Your task to perform on an android device: open app "Life360: Find Family & Friends" (install if not already installed) Image 0: 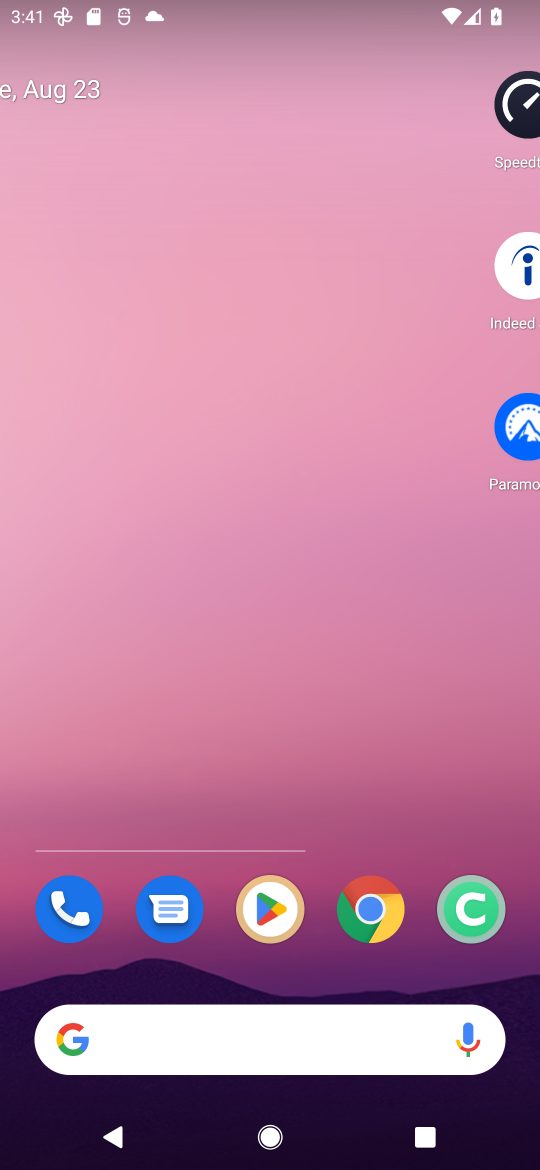
Step 0: press home button
Your task to perform on an android device: open app "Life360: Find Family & Friends" (install if not already installed) Image 1: 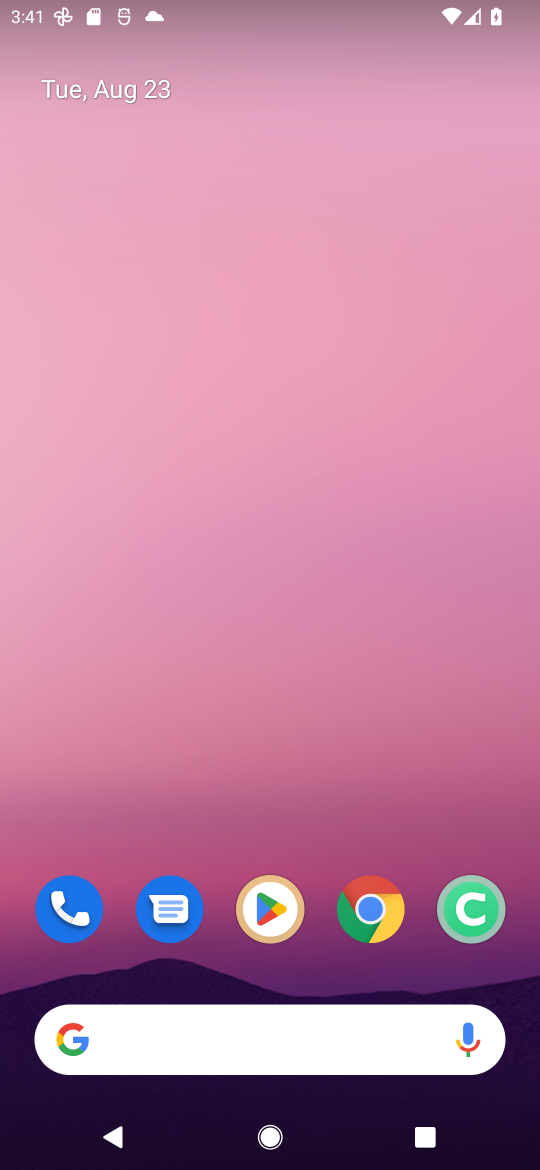
Step 1: click (264, 902)
Your task to perform on an android device: open app "Life360: Find Family & Friends" (install if not already installed) Image 2: 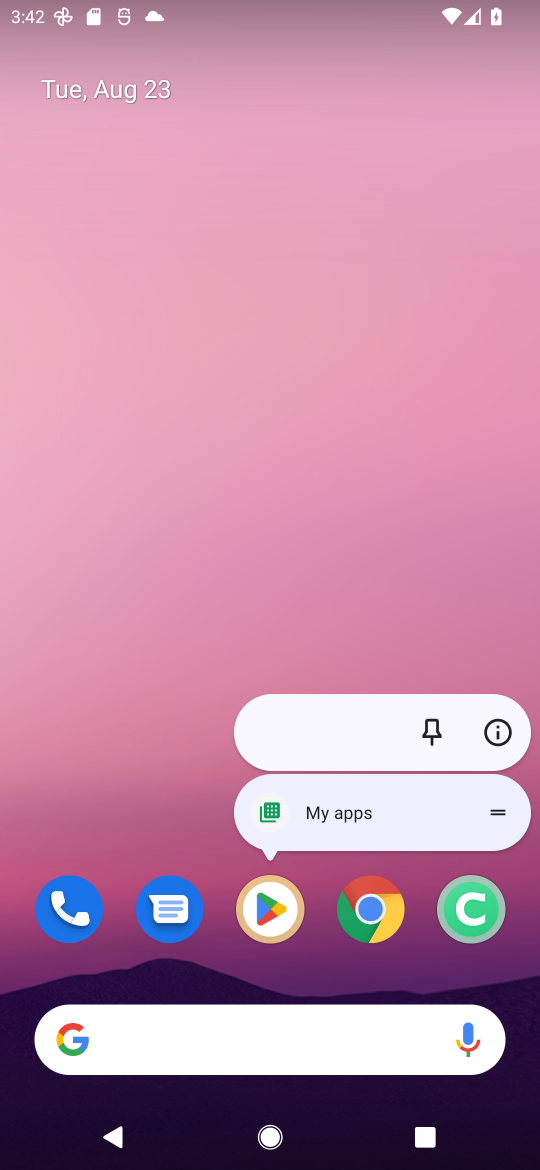
Step 2: click (101, 665)
Your task to perform on an android device: open app "Life360: Find Family & Friends" (install if not already installed) Image 3: 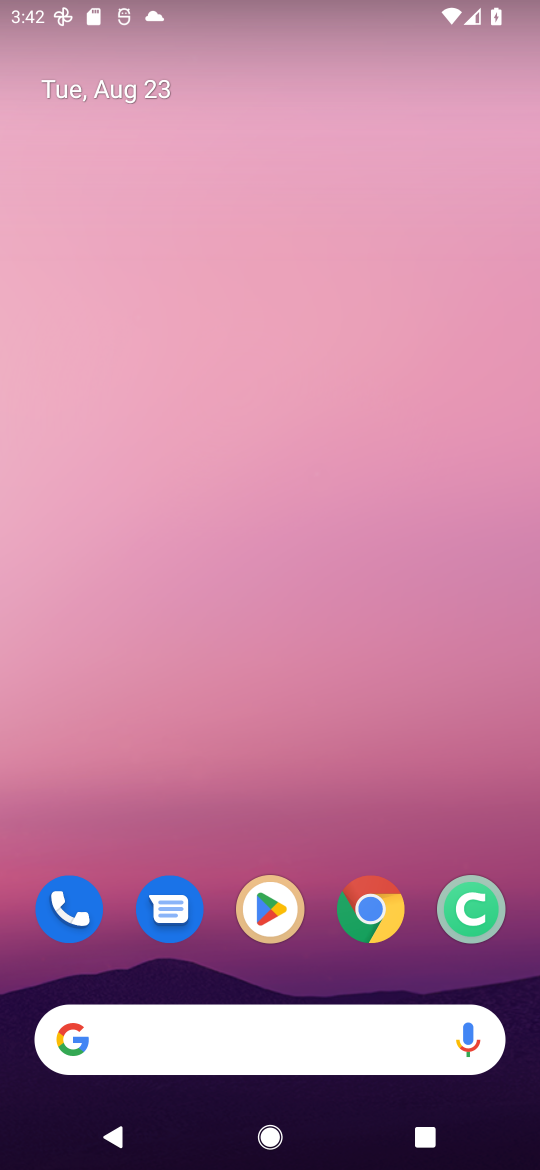
Step 3: click (266, 909)
Your task to perform on an android device: open app "Life360: Find Family & Friends" (install if not already installed) Image 4: 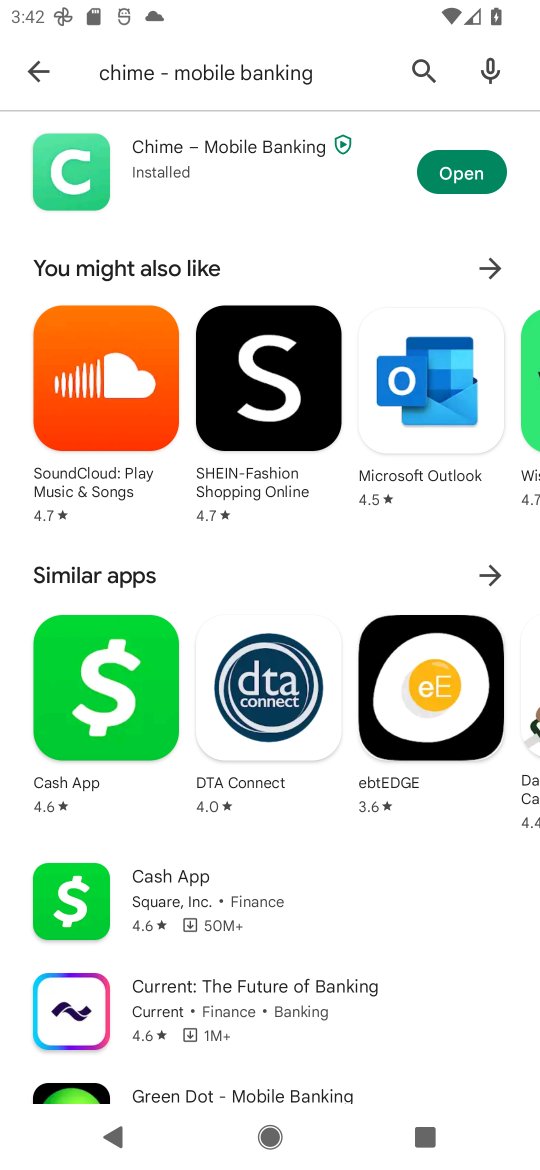
Step 4: click (419, 74)
Your task to perform on an android device: open app "Life360: Find Family & Friends" (install if not already installed) Image 5: 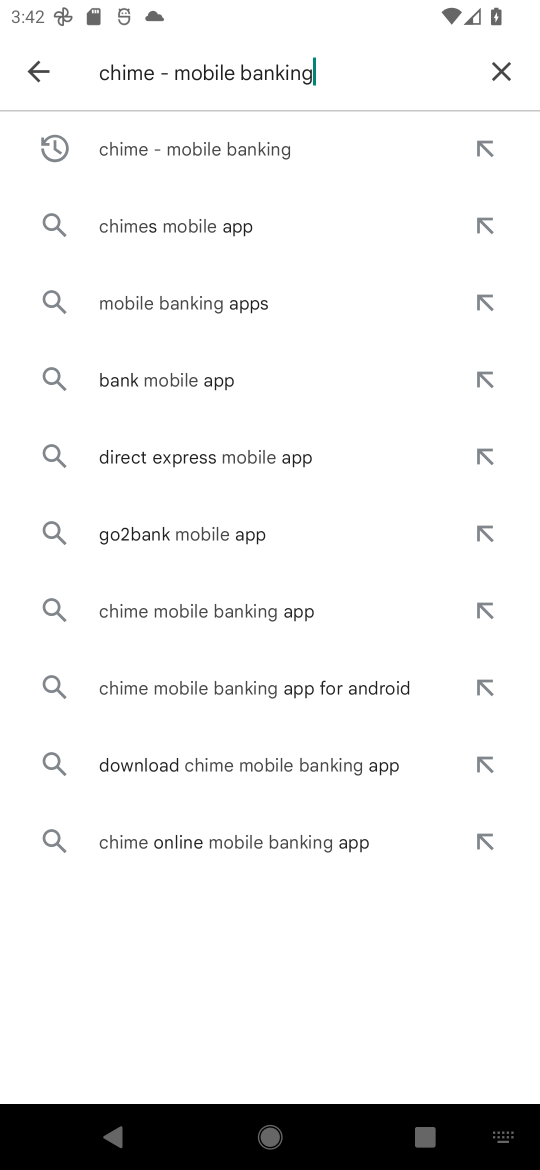
Step 5: click (501, 71)
Your task to perform on an android device: open app "Life360: Find Family & Friends" (install if not already installed) Image 6: 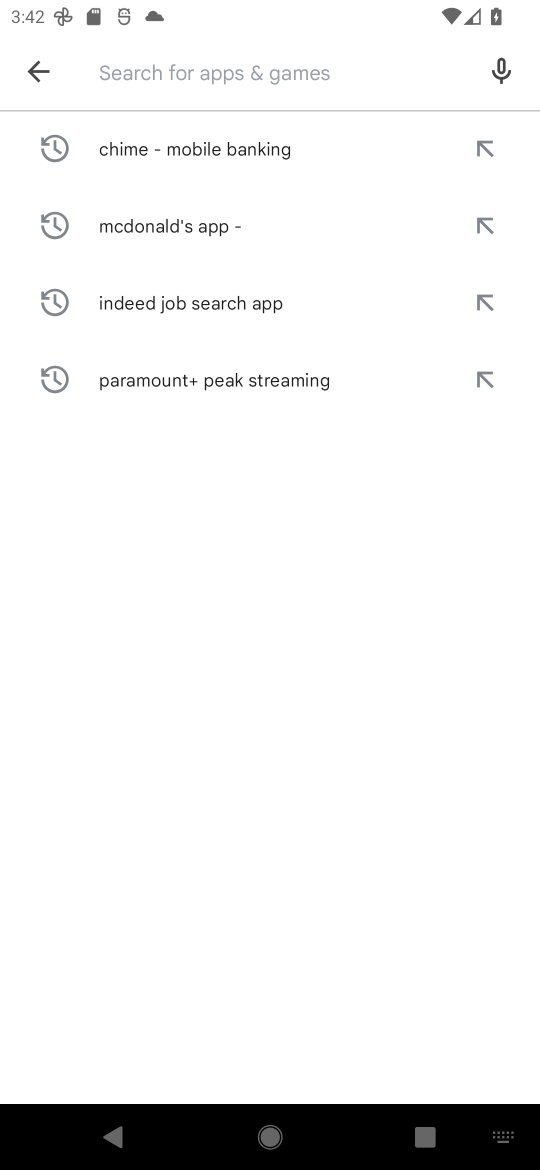
Step 6: type "Life360: Find Family & Friends"
Your task to perform on an android device: open app "Life360: Find Family & Friends" (install if not already installed) Image 7: 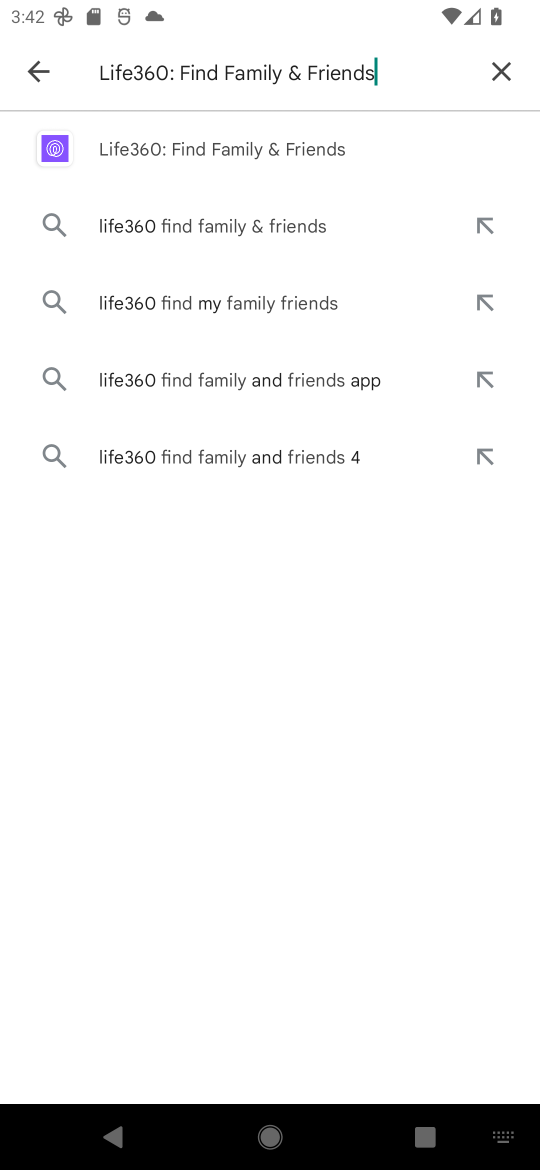
Step 7: click (212, 150)
Your task to perform on an android device: open app "Life360: Find Family & Friends" (install if not already installed) Image 8: 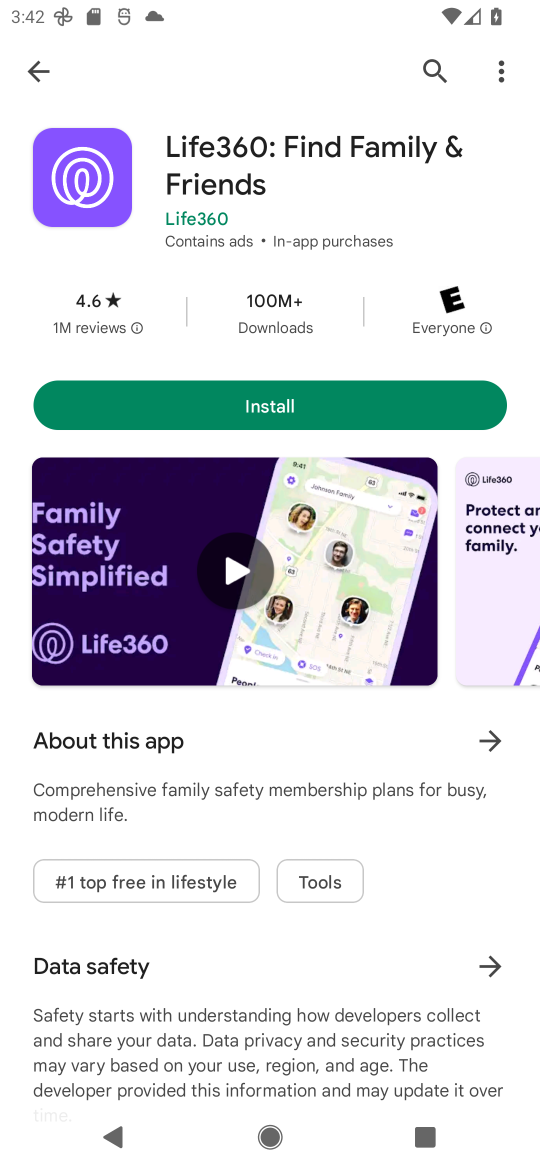
Step 8: click (275, 418)
Your task to perform on an android device: open app "Life360: Find Family & Friends" (install if not already installed) Image 9: 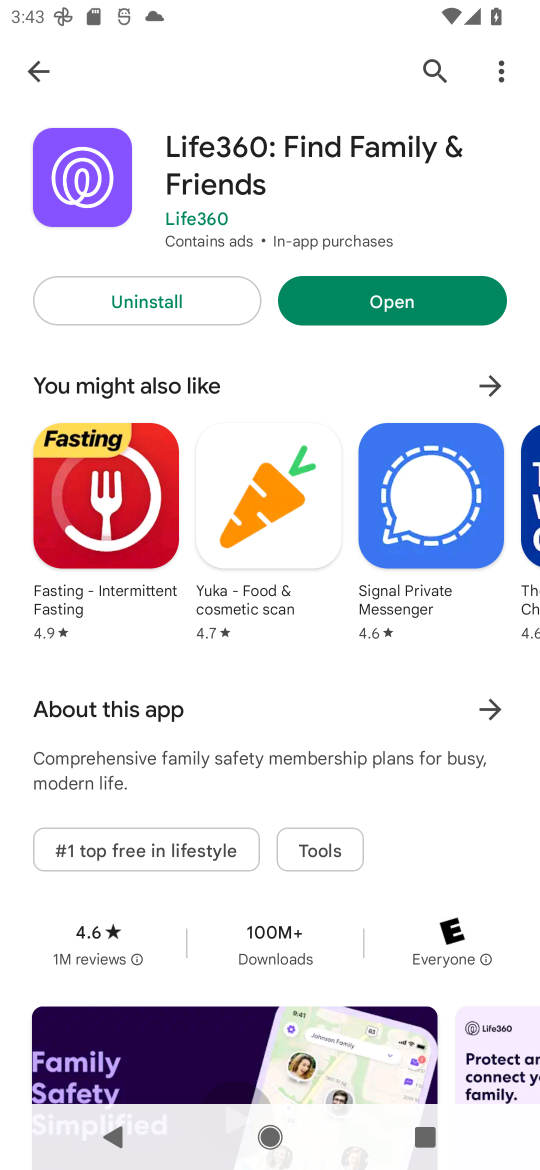
Step 9: task complete